Your task to perform on an android device: Open display settings Image 0: 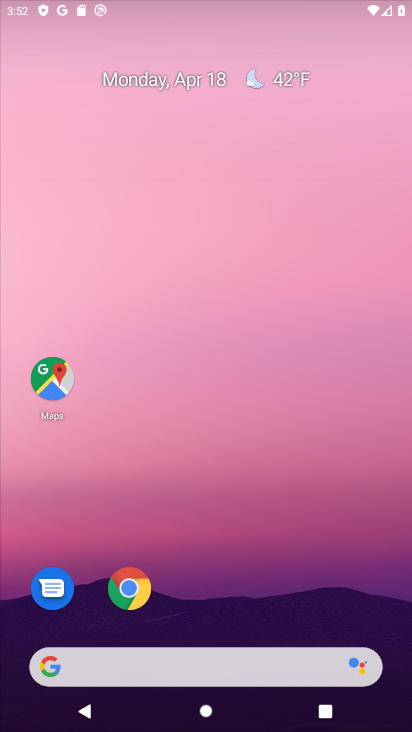
Step 0: click (191, 127)
Your task to perform on an android device: Open display settings Image 1: 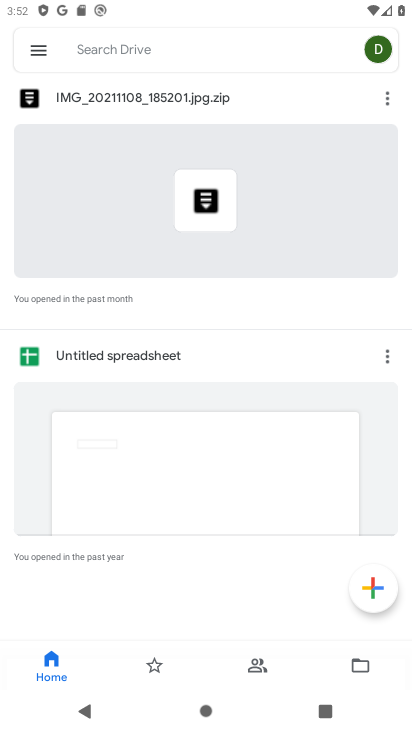
Step 1: press home button
Your task to perform on an android device: Open display settings Image 2: 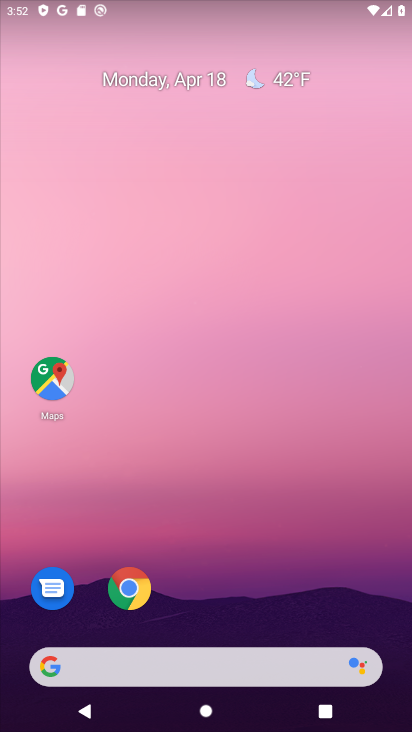
Step 2: drag from (238, 560) to (246, 187)
Your task to perform on an android device: Open display settings Image 3: 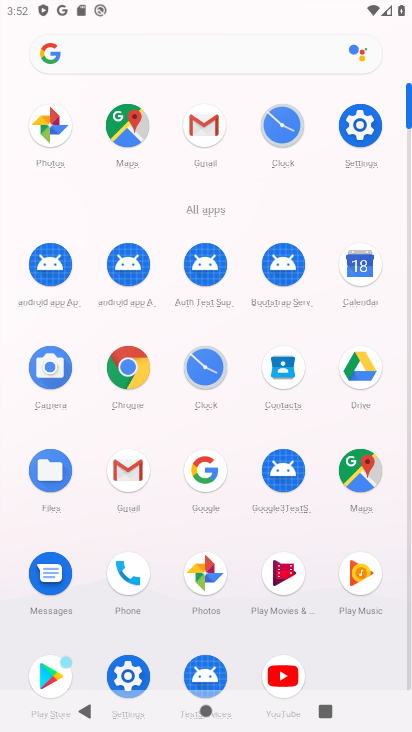
Step 3: click (130, 671)
Your task to perform on an android device: Open display settings Image 4: 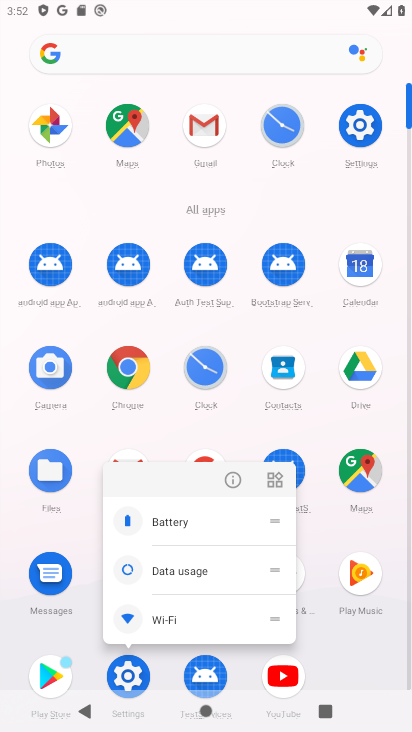
Step 4: click (135, 669)
Your task to perform on an android device: Open display settings Image 5: 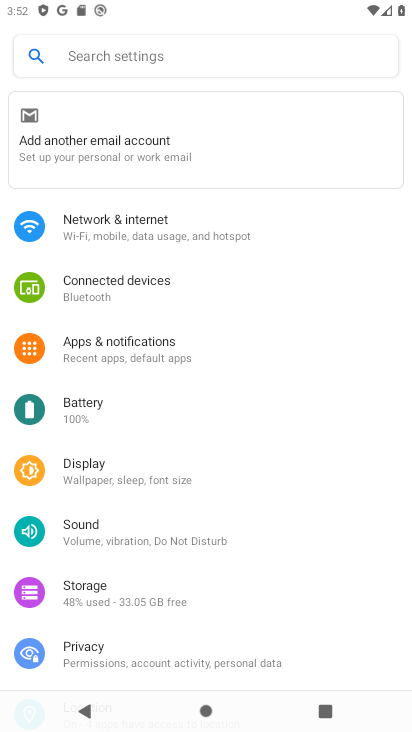
Step 5: click (130, 477)
Your task to perform on an android device: Open display settings Image 6: 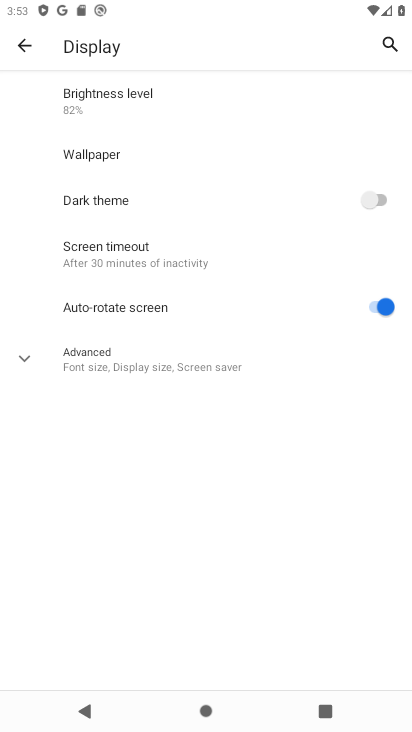
Step 6: task complete